Your task to perform on an android device: Open settings on Google Maps Image 0: 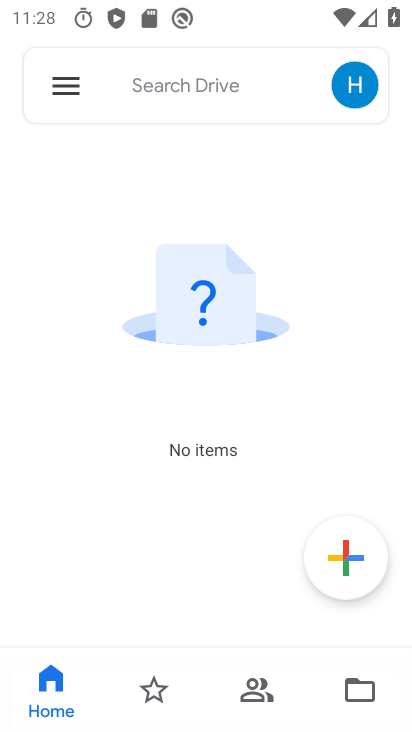
Step 0: press home button
Your task to perform on an android device: Open settings on Google Maps Image 1: 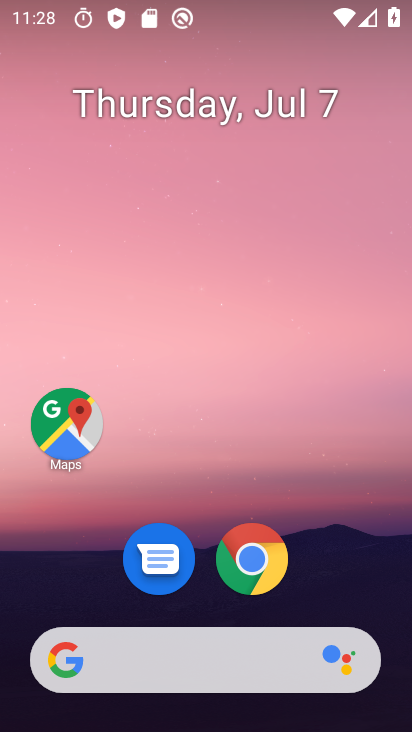
Step 1: drag from (373, 574) to (371, 99)
Your task to perform on an android device: Open settings on Google Maps Image 2: 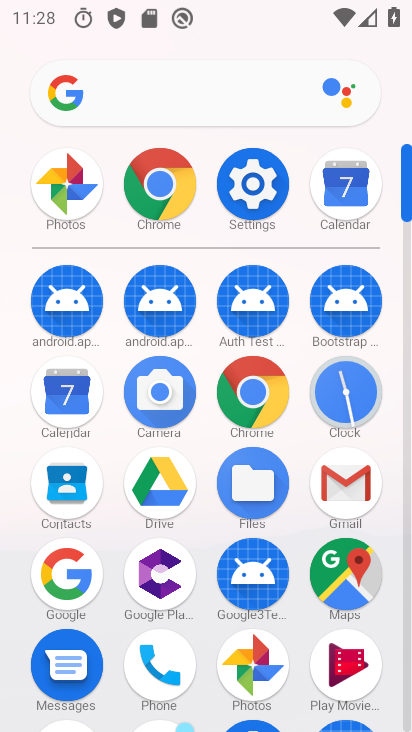
Step 2: click (346, 577)
Your task to perform on an android device: Open settings on Google Maps Image 3: 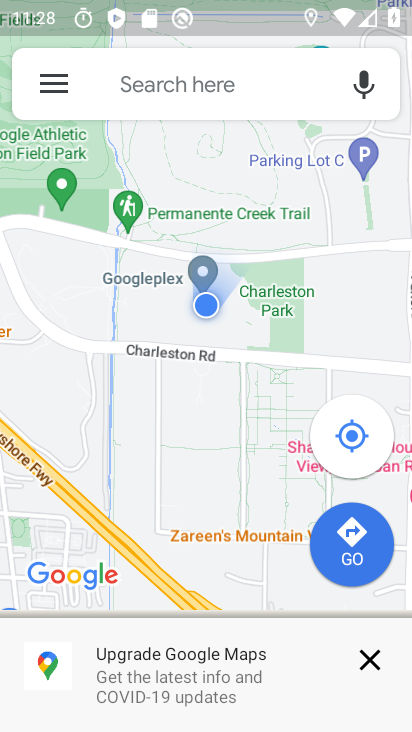
Step 3: click (56, 98)
Your task to perform on an android device: Open settings on Google Maps Image 4: 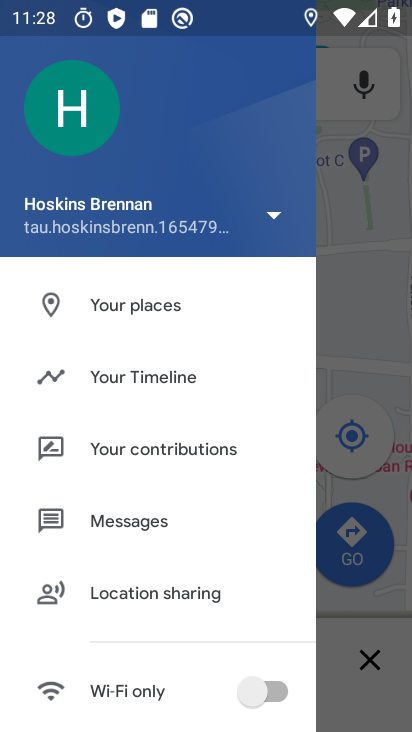
Step 4: drag from (255, 489) to (278, 369)
Your task to perform on an android device: Open settings on Google Maps Image 5: 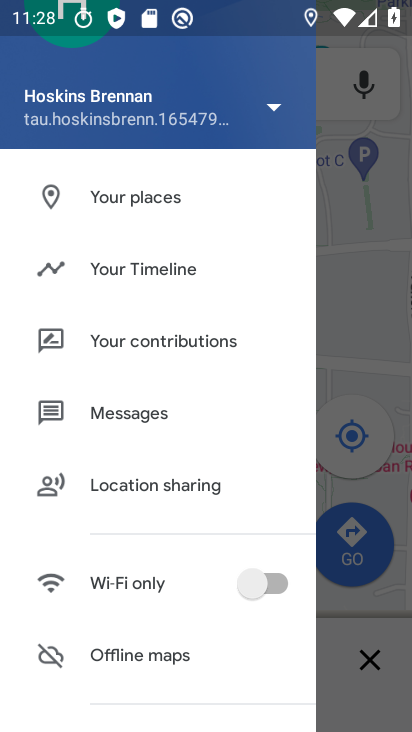
Step 5: drag from (230, 525) to (239, 372)
Your task to perform on an android device: Open settings on Google Maps Image 6: 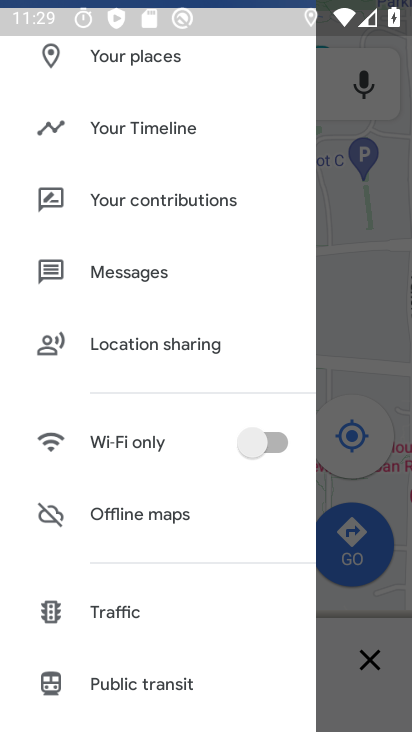
Step 6: drag from (195, 573) to (199, 434)
Your task to perform on an android device: Open settings on Google Maps Image 7: 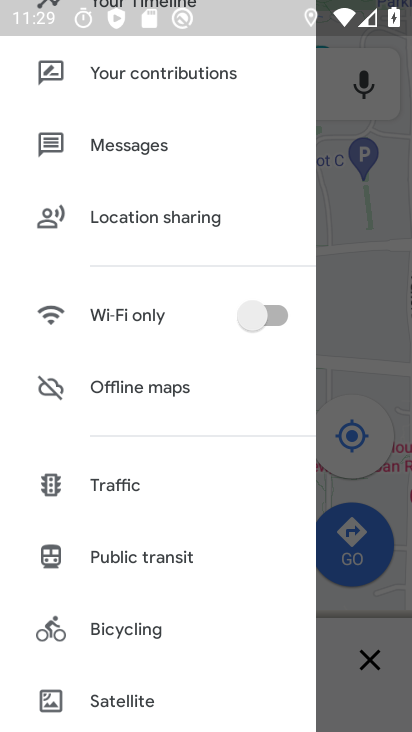
Step 7: drag from (201, 644) to (210, 415)
Your task to perform on an android device: Open settings on Google Maps Image 8: 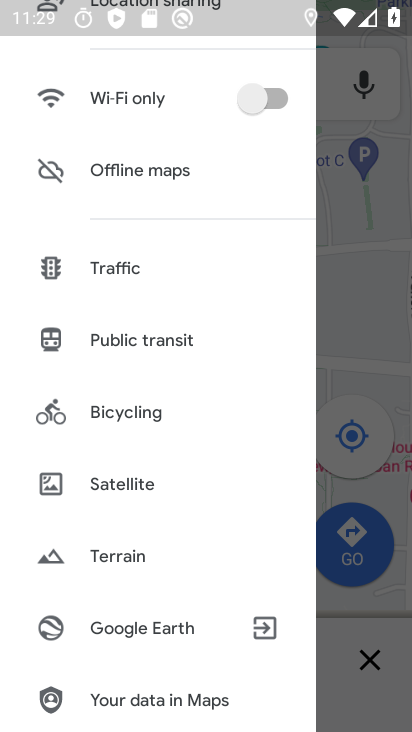
Step 8: drag from (198, 650) to (219, 444)
Your task to perform on an android device: Open settings on Google Maps Image 9: 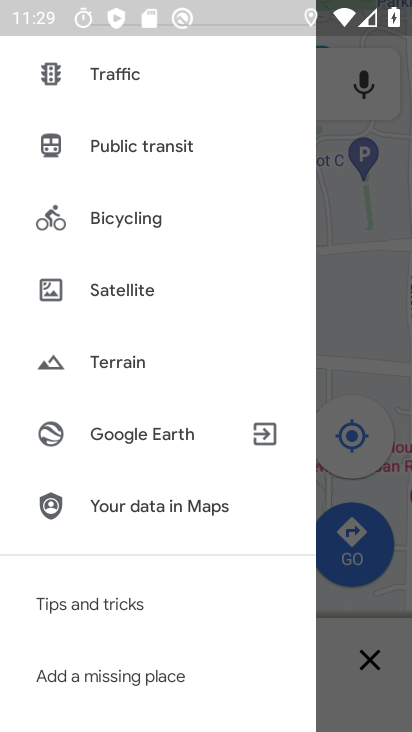
Step 9: drag from (222, 596) to (223, 383)
Your task to perform on an android device: Open settings on Google Maps Image 10: 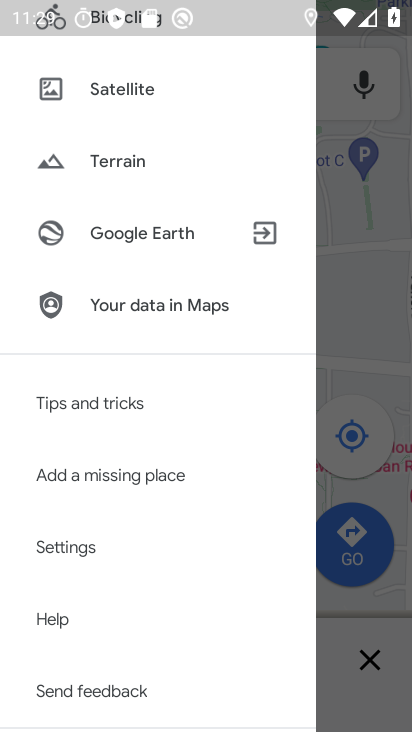
Step 10: click (127, 550)
Your task to perform on an android device: Open settings on Google Maps Image 11: 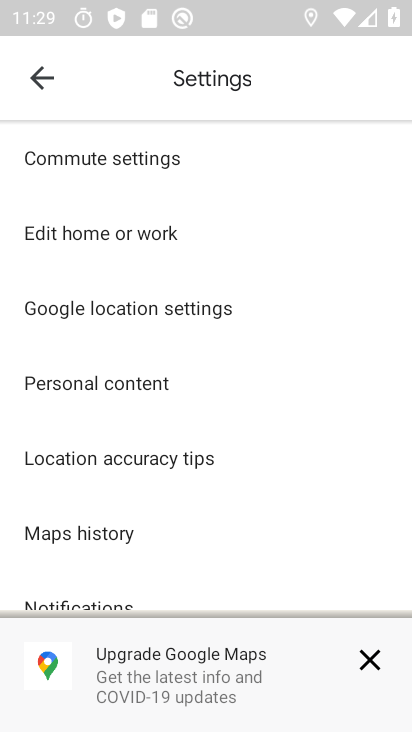
Step 11: task complete